Your task to perform on an android device: toggle show notifications on the lock screen Image 0: 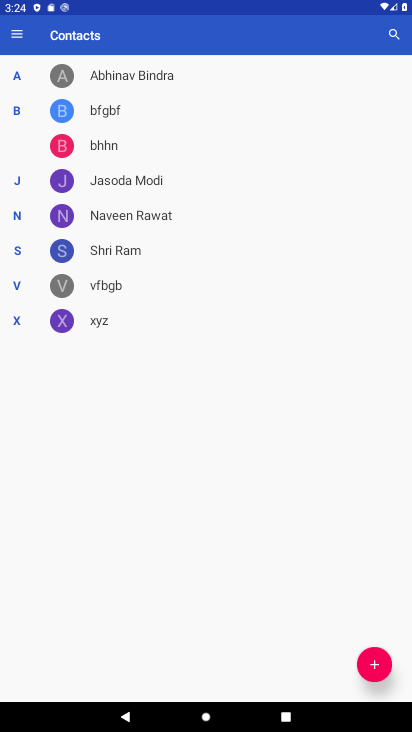
Step 0: press home button
Your task to perform on an android device: toggle show notifications on the lock screen Image 1: 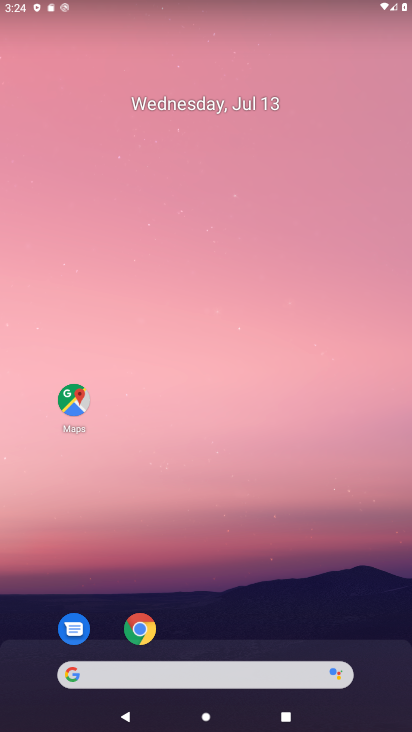
Step 1: drag from (248, 581) to (226, 39)
Your task to perform on an android device: toggle show notifications on the lock screen Image 2: 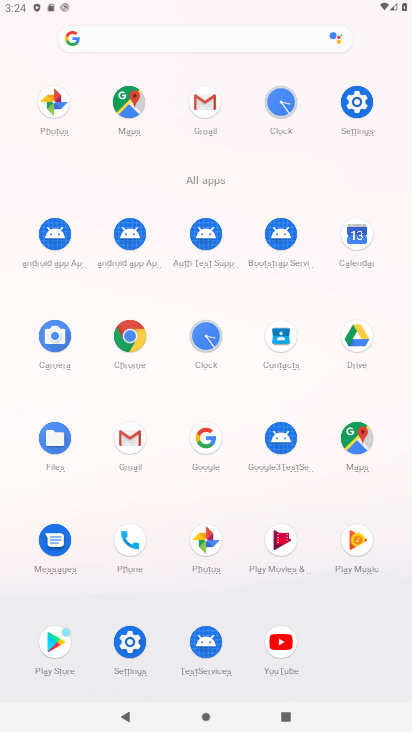
Step 2: click (350, 100)
Your task to perform on an android device: toggle show notifications on the lock screen Image 3: 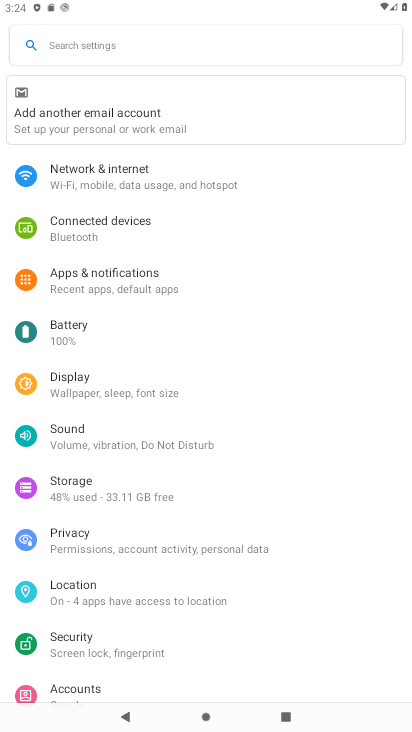
Step 3: click (93, 282)
Your task to perform on an android device: toggle show notifications on the lock screen Image 4: 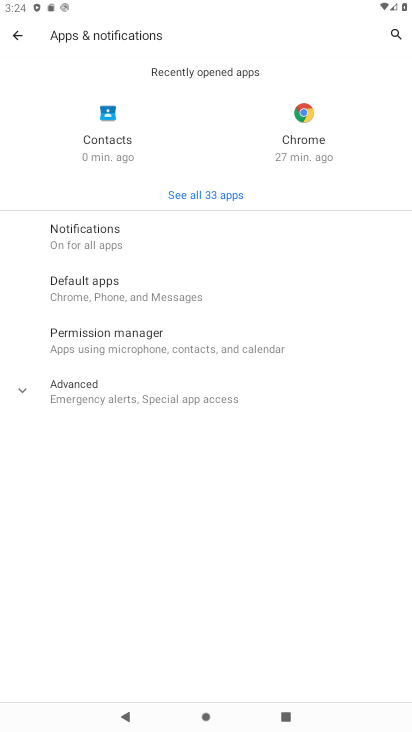
Step 4: click (83, 237)
Your task to perform on an android device: toggle show notifications on the lock screen Image 5: 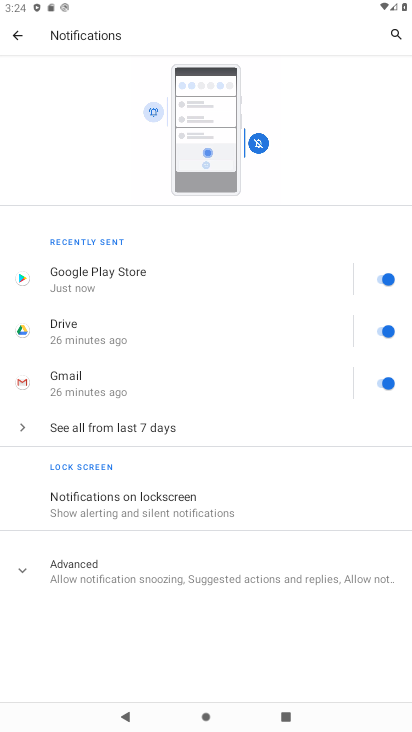
Step 5: click (94, 505)
Your task to perform on an android device: toggle show notifications on the lock screen Image 6: 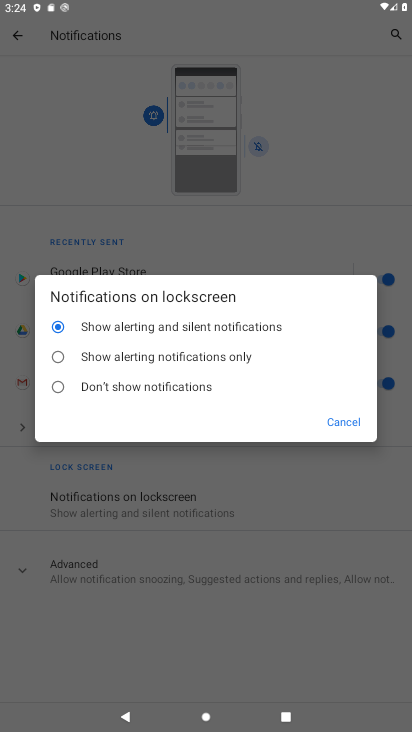
Step 6: task complete